Your task to perform on an android device: see creations saved in the google photos Image 0: 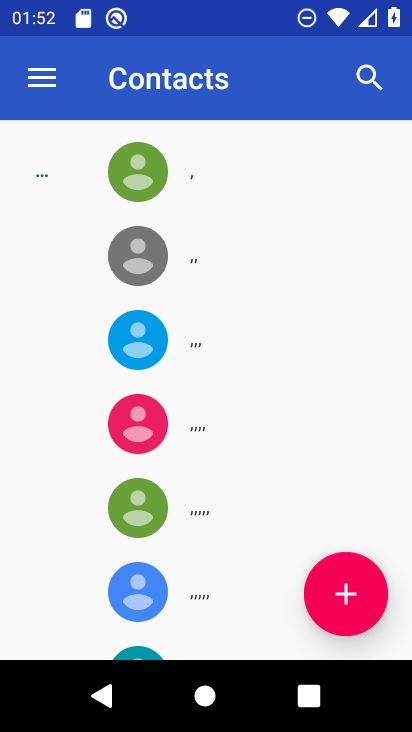
Step 0: drag from (302, 521) to (309, 252)
Your task to perform on an android device: see creations saved in the google photos Image 1: 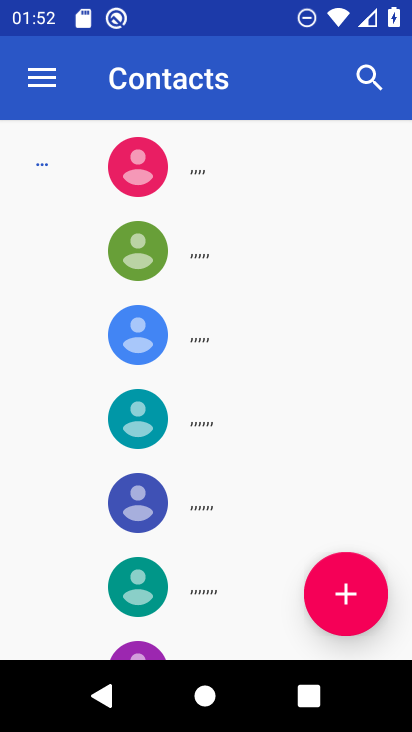
Step 1: press home button
Your task to perform on an android device: see creations saved in the google photos Image 2: 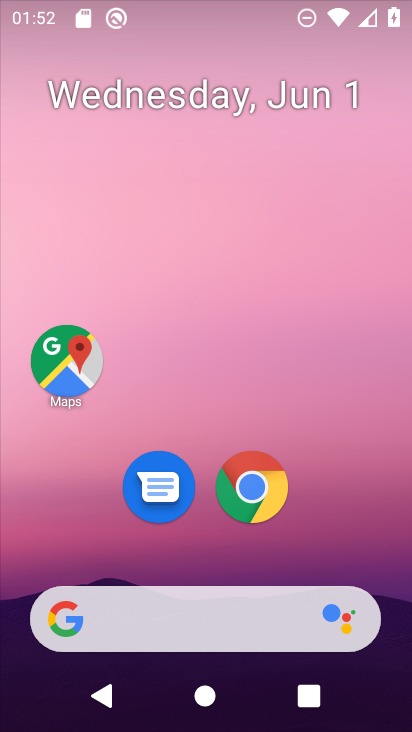
Step 2: drag from (306, 568) to (316, 226)
Your task to perform on an android device: see creations saved in the google photos Image 3: 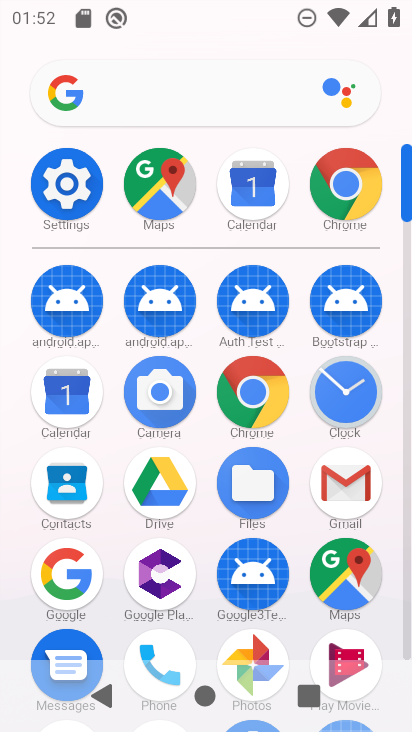
Step 3: drag from (199, 554) to (222, 345)
Your task to perform on an android device: see creations saved in the google photos Image 4: 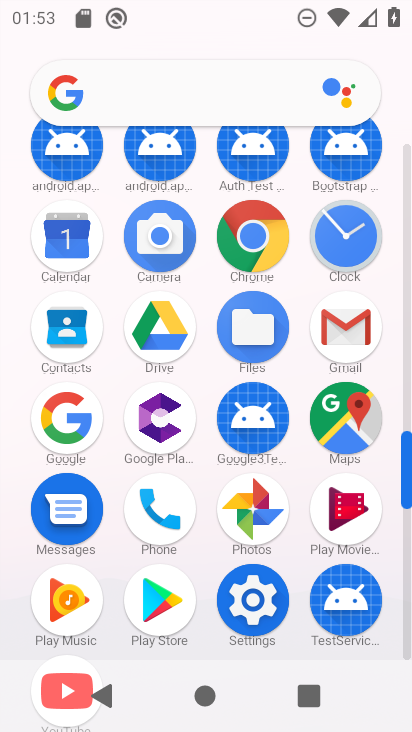
Step 4: click (239, 493)
Your task to perform on an android device: see creations saved in the google photos Image 5: 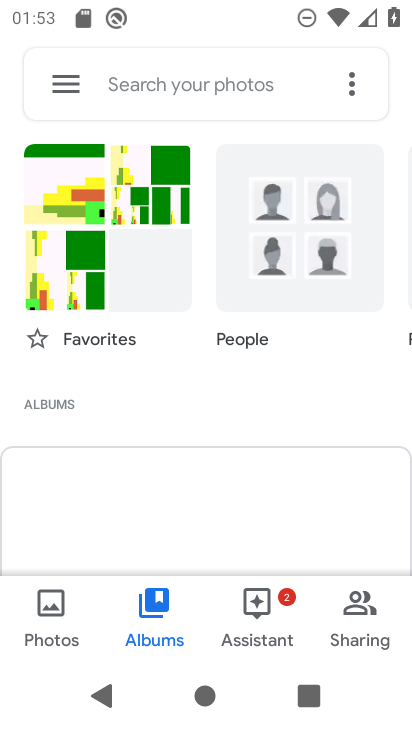
Step 5: click (66, 200)
Your task to perform on an android device: see creations saved in the google photos Image 6: 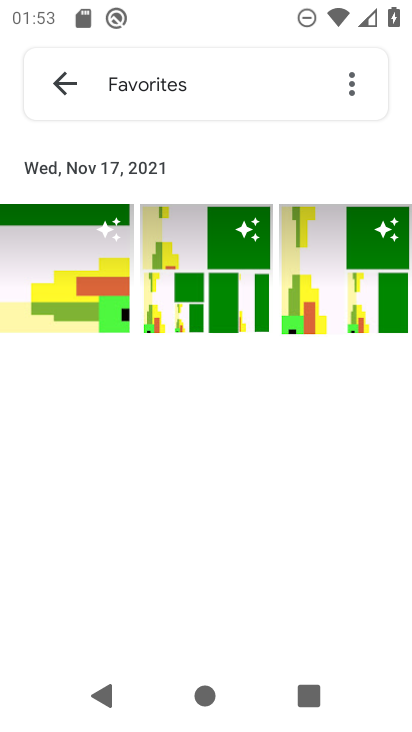
Step 6: task complete